Your task to perform on an android device: Check the weather Image 0: 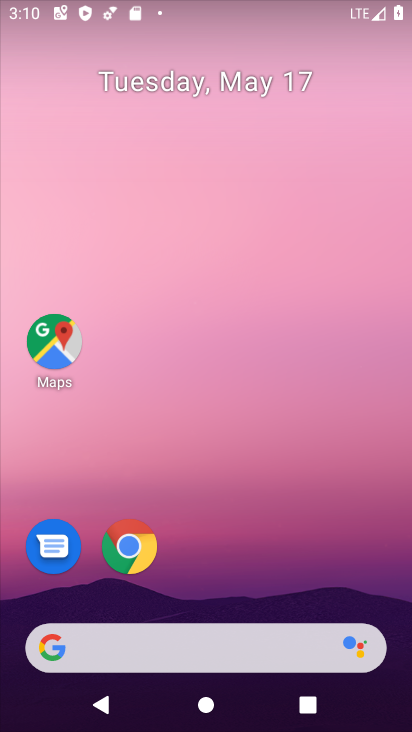
Step 0: press home button
Your task to perform on an android device: Check the weather Image 1: 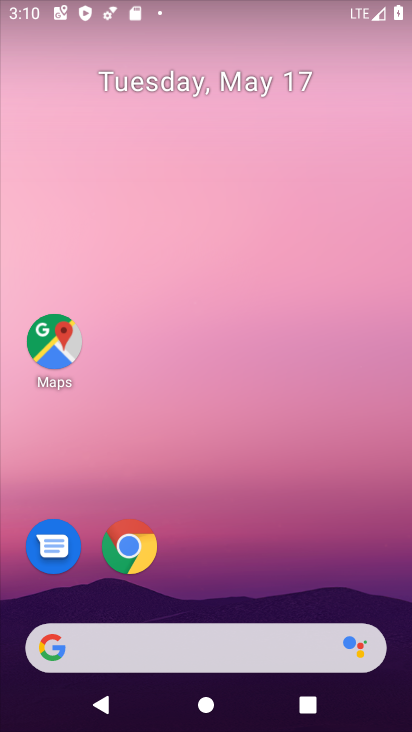
Step 1: click (158, 557)
Your task to perform on an android device: Check the weather Image 2: 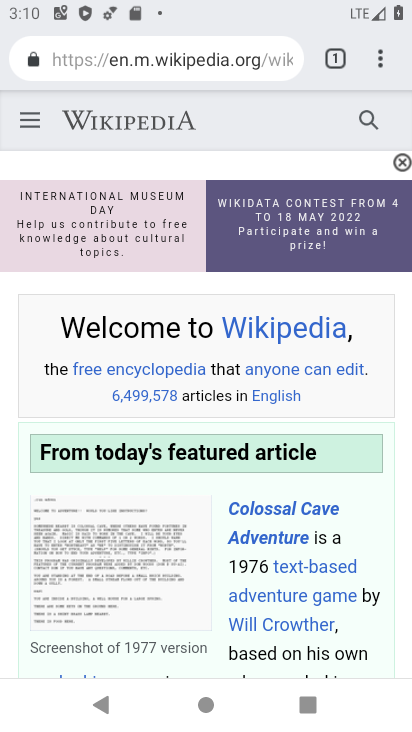
Step 2: click (271, 48)
Your task to perform on an android device: Check the weather Image 3: 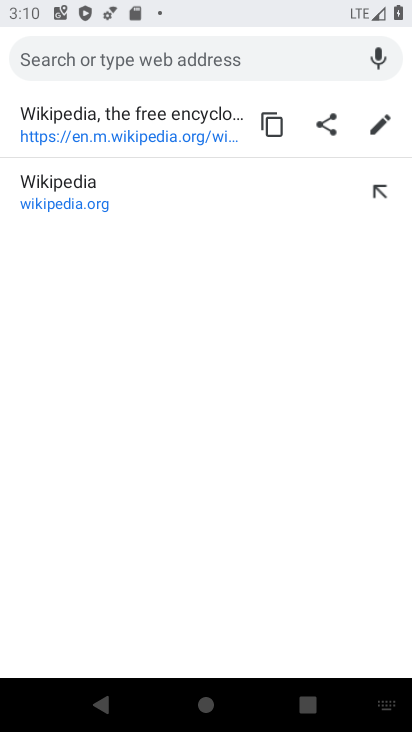
Step 3: type " weather"
Your task to perform on an android device: Check the weather Image 4: 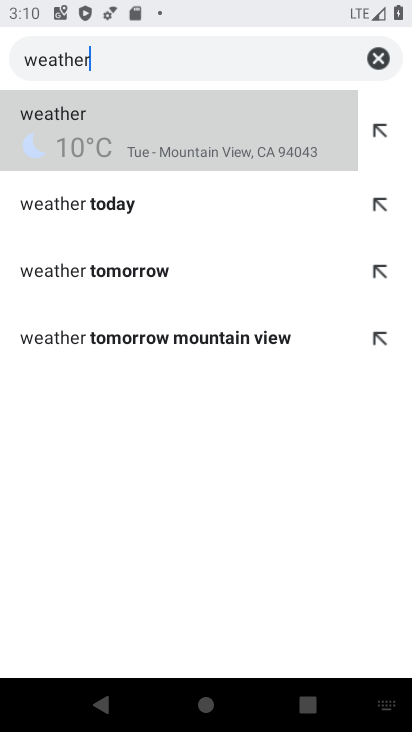
Step 4: click (153, 108)
Your task to perform on an android device: Check the weather Image 5: 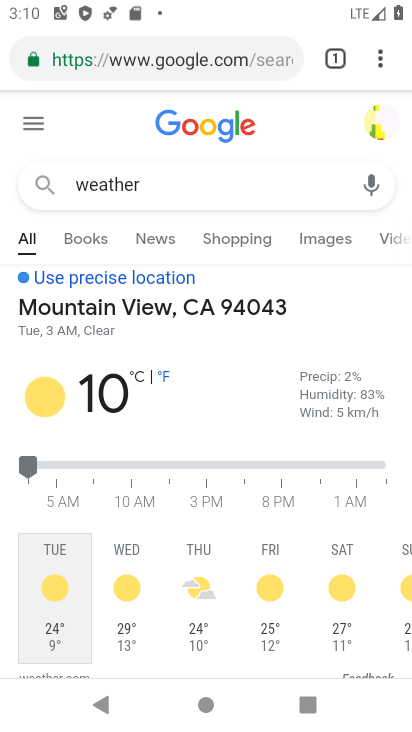
Step 5: task complete